Your task to perform on an android device: toggle wifi Image 0: 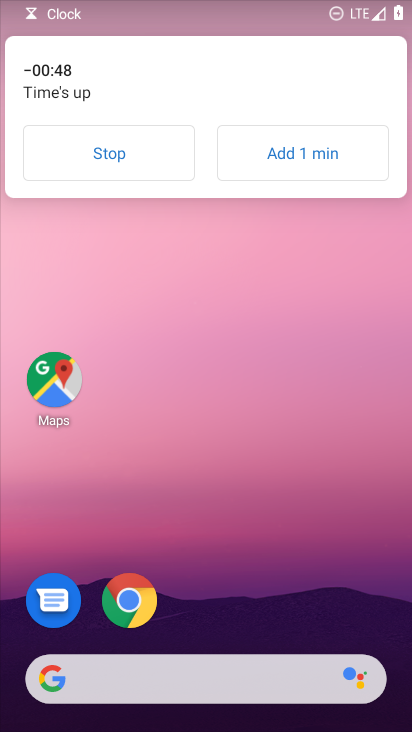
Step 0: drag from (130, 6) to (117, 401)
Your task to perform on an android device: toggle wifi Image 1: 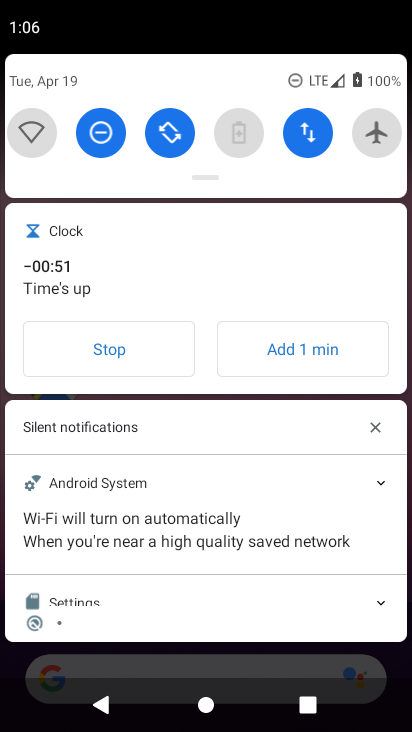
Step 1: click (38, 139)
Your task to perform on an android device: toggle wifi Image 2: 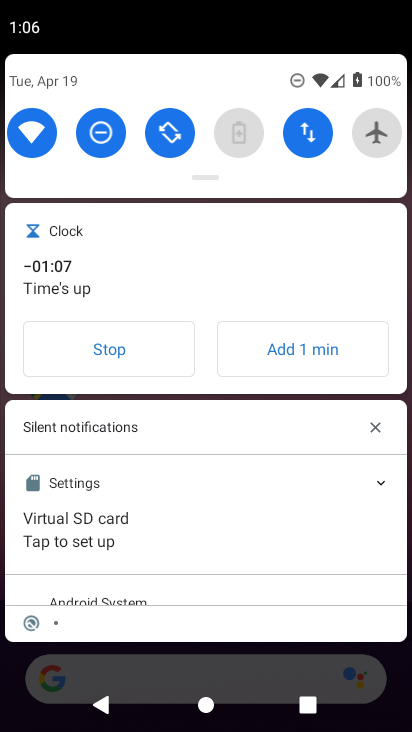
Step 2: task complete